Your task to perform on an android device: Search for Italian restaurants on Maps Image 0: 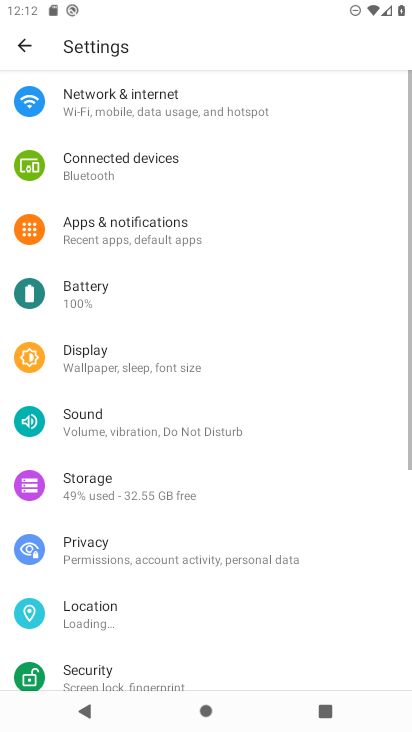
Step 0: click (157, 627)
Your task to perform on an android device: Search for Italian restaurants on Maps Image 1: 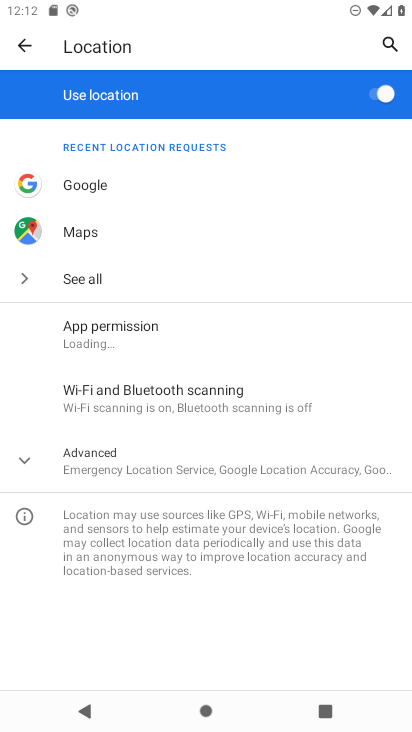
Step 1: press home button
Your task to perform on an android device: Search for Italian restaurants on Maps Image 2: 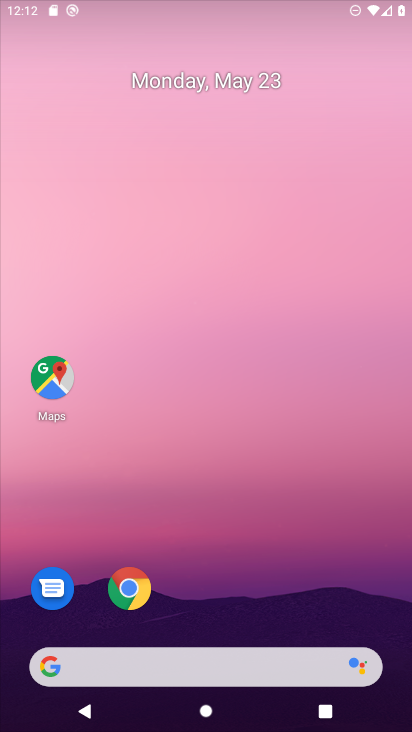
Step 2: click (124, 461)
Your task to perform on an android device: Search for Italian restaurants on Maps Image 3: 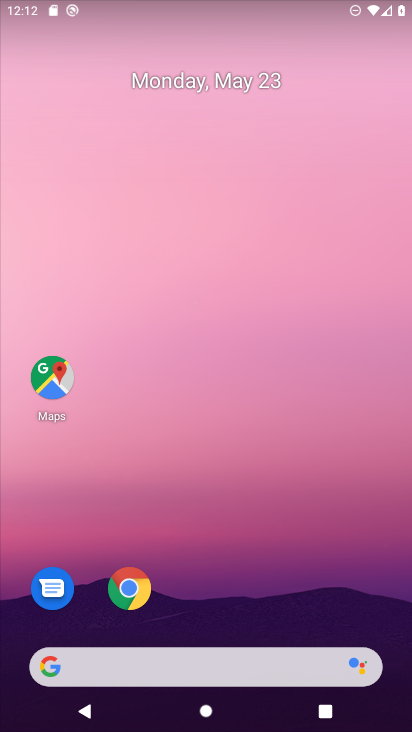
Step 3: click (50, 367)
Your task to perform on an android device: Search for Italian restaurants on Maps Image 4: 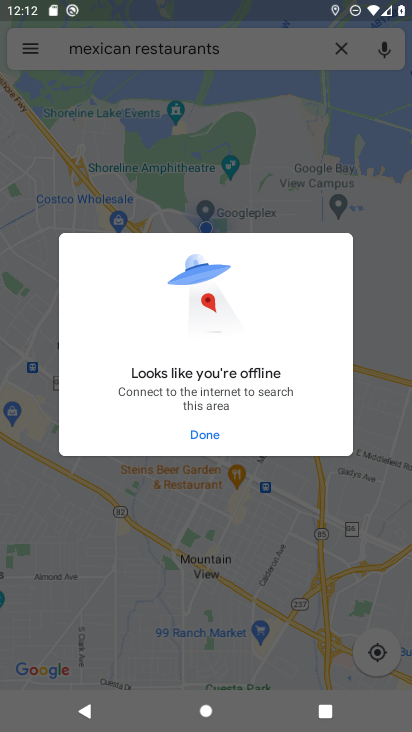
Step 4: click (207, 429)
Your task to perform on an android device: Search for Italian restaurants on Maps Image 5: 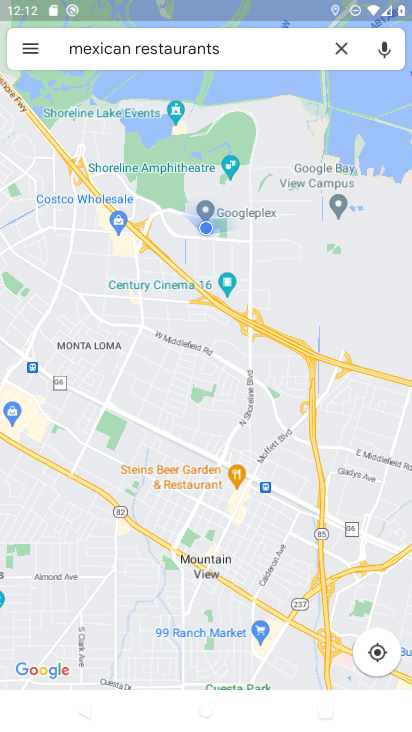
Step 5: click (337, 53)
Your task to perform on an android device: Search for Italian restaurants on Maps Image 6: 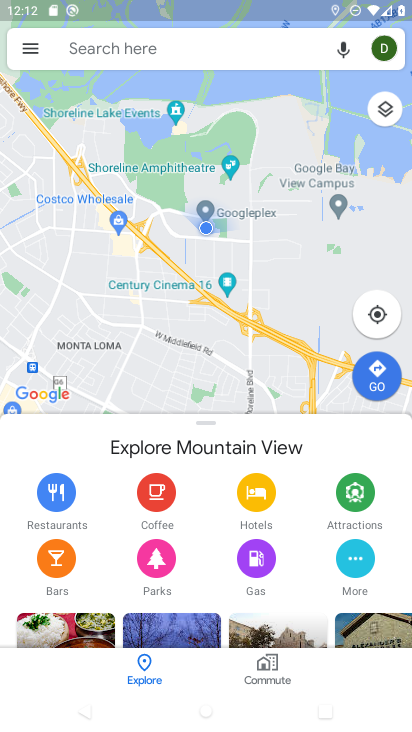
Step 6: click (196, 55)
Your task to perform on an android device: Search for Italian restaurants on Maps Image 7: 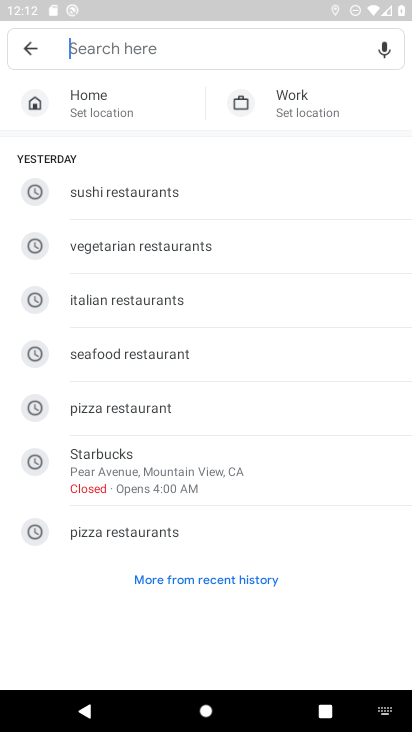
Step 7: click (181, 297)
Your task to perform on an android device: Search for Italian restaurants on Maps Image 8: 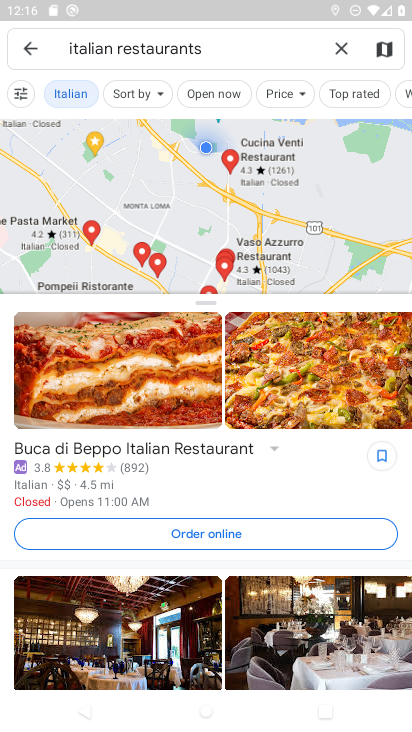
Step 8: task complete